Your task to perform on an android device: Go to ESPN.com Image 0: 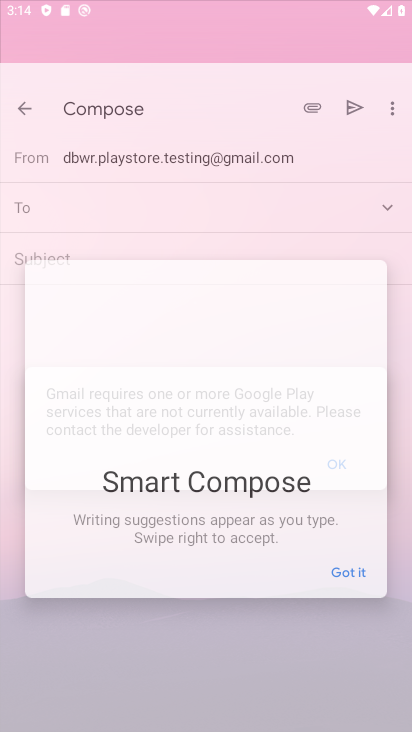
Step 0: press home button
Your task to perform on an android device: Go to ESPN.com Image 1: 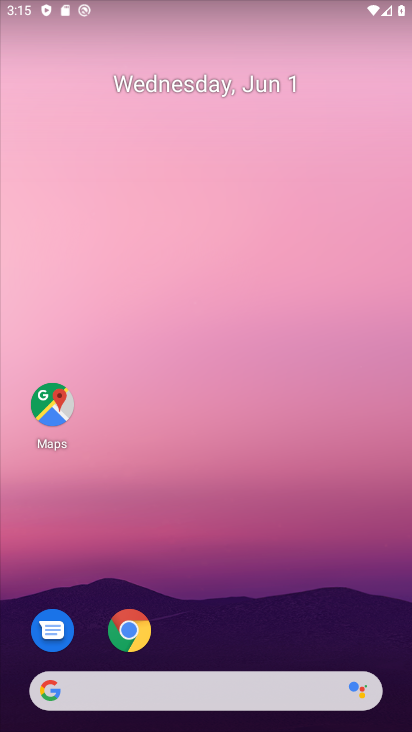
Step 1: click (45, 691)
Your task to perform on an android device: Go to ESPN.com Image 2: 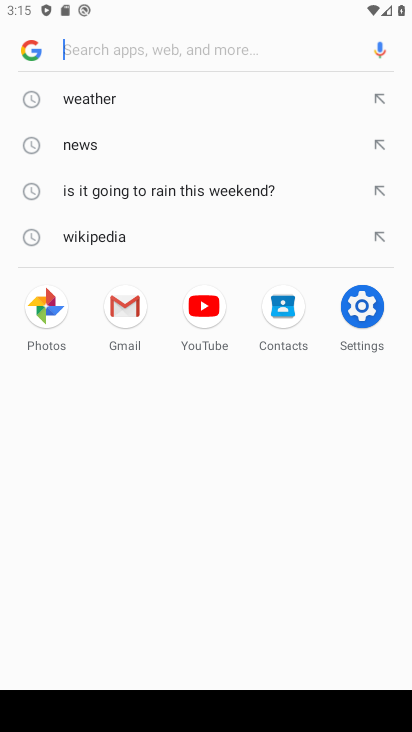
Step 2: type "ESPN.com"
Your task to perform on an android device: Go to ESPN.com Image 3: 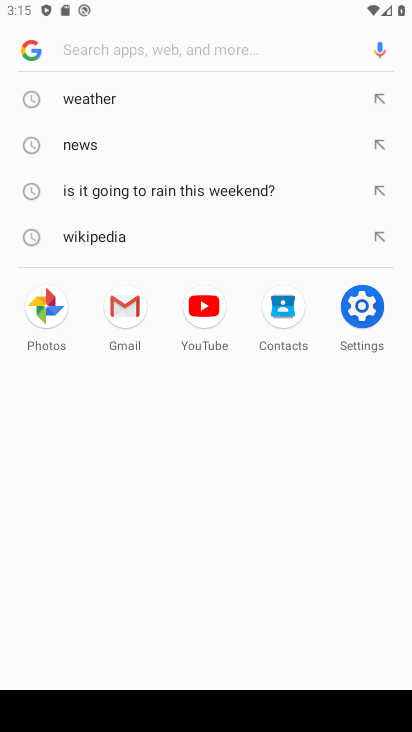
Step 3: click (186, 46)
Your task to perform on an android device: Go to ESPN.com Image 4: 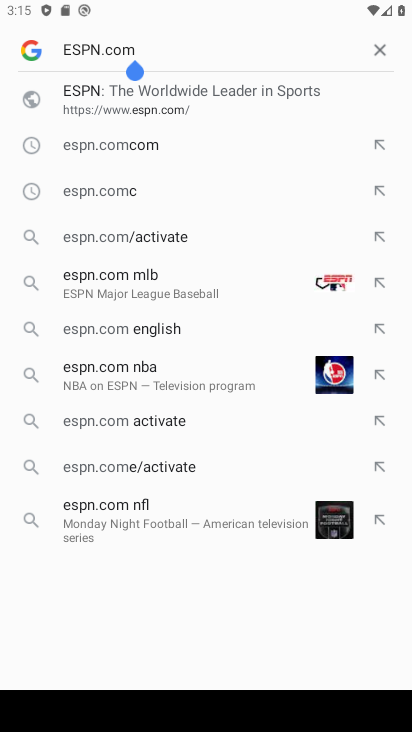
Step 4: click (102, 96)
Your task to perform on an android device: Go to ESPN.com Image 5: 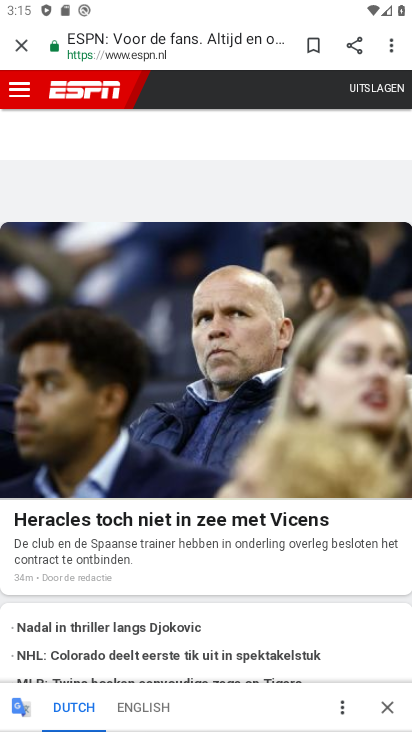
Step 5: task complete